Your task to perform on an android device: change keyboard looks Image 0: 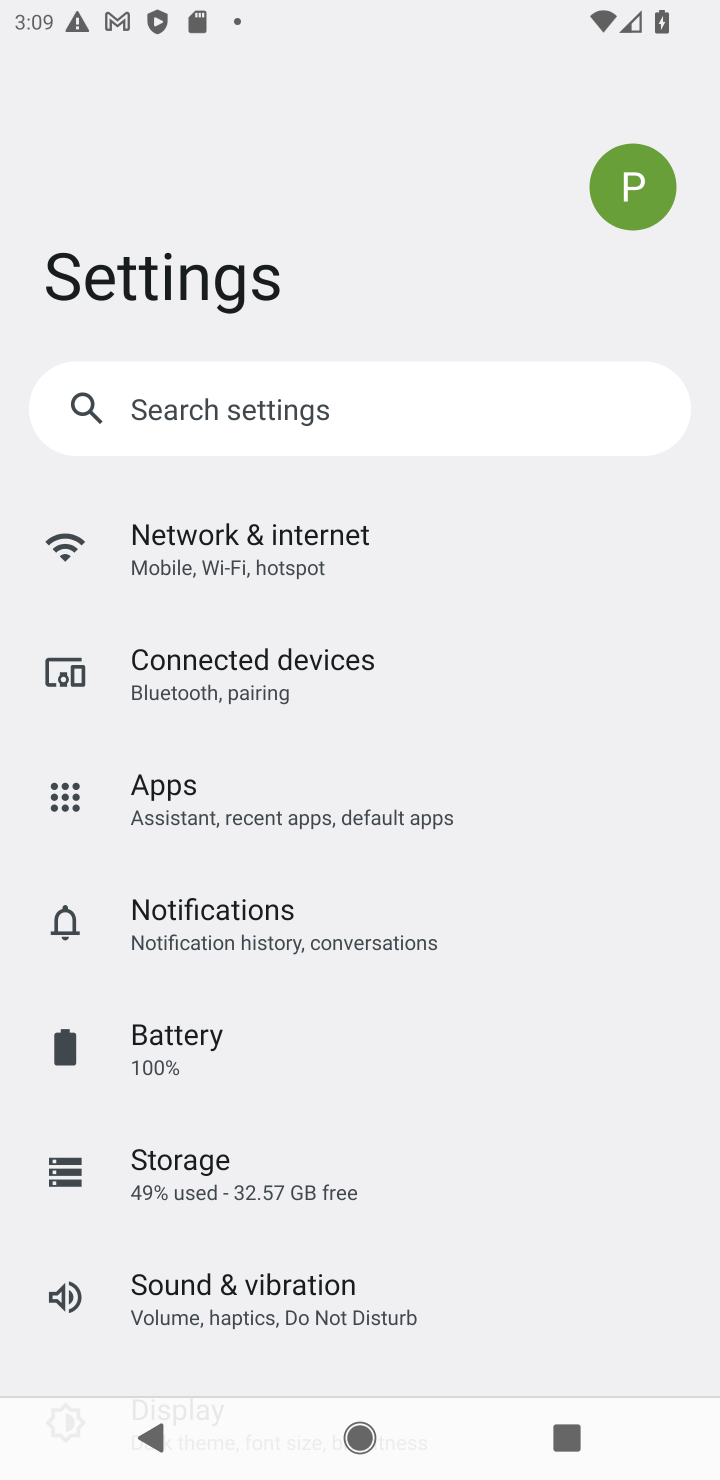
Step 0: drag from (284, 1348) to (333, 587)
Your task to perform on an android device: change keyboard looks Image 1: 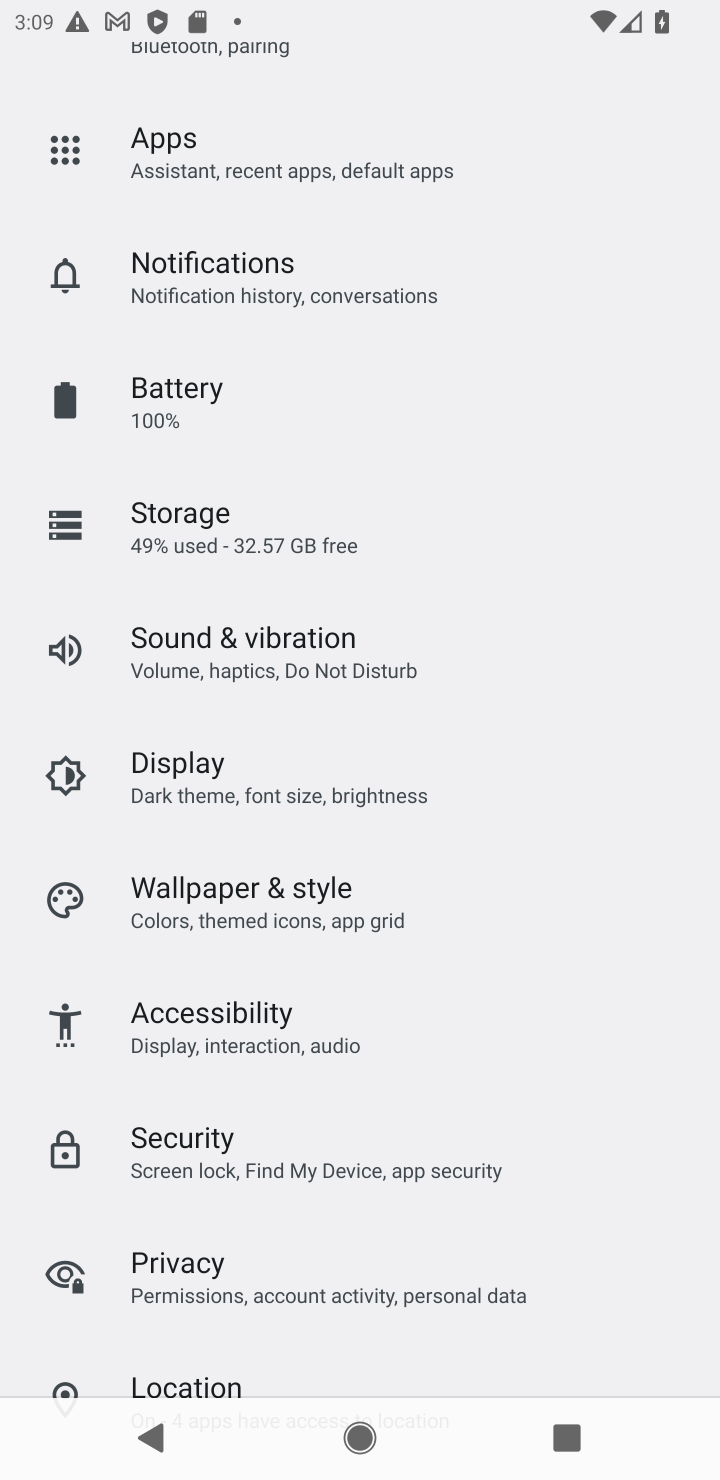
Step 1: drag from (215, 1282) to (229, 691)
Your task to perform on an android device: change keyboard looks Image 2: 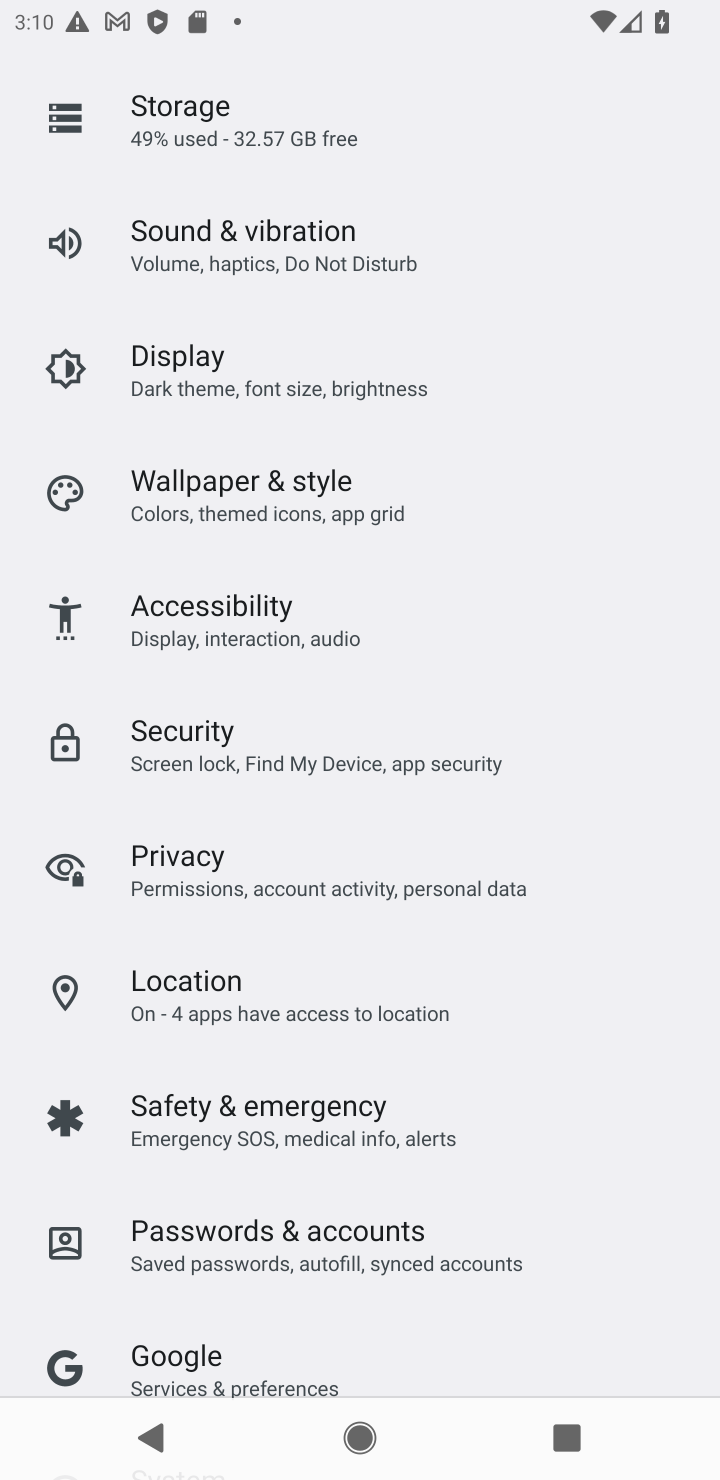
Step 2: drag from (220, 1273) to (220, 639)
Your task to perform on an android device: change keyboard looks Image 3: 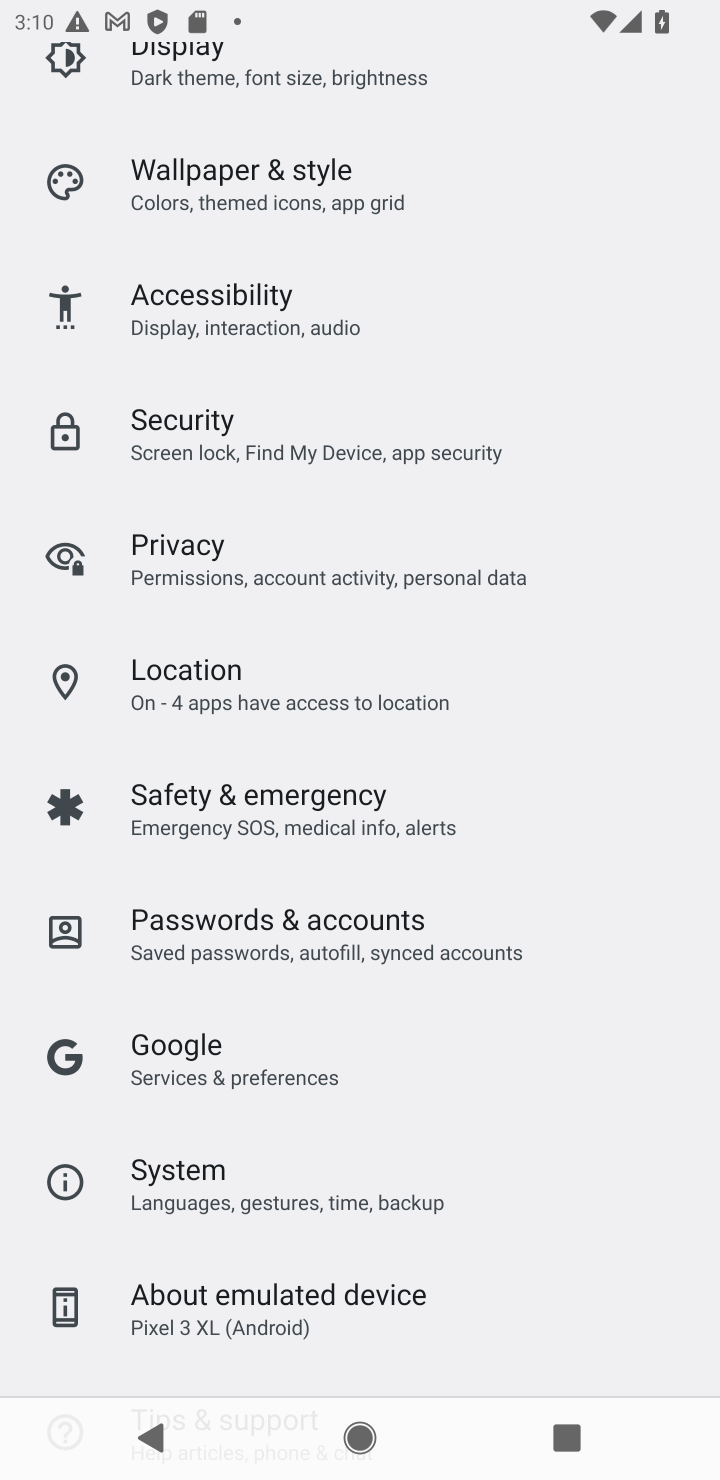
Step 3: drag from (307, 1249) to (279, 620)
Your task to perform on an android device: change keyboard looks Image 4: 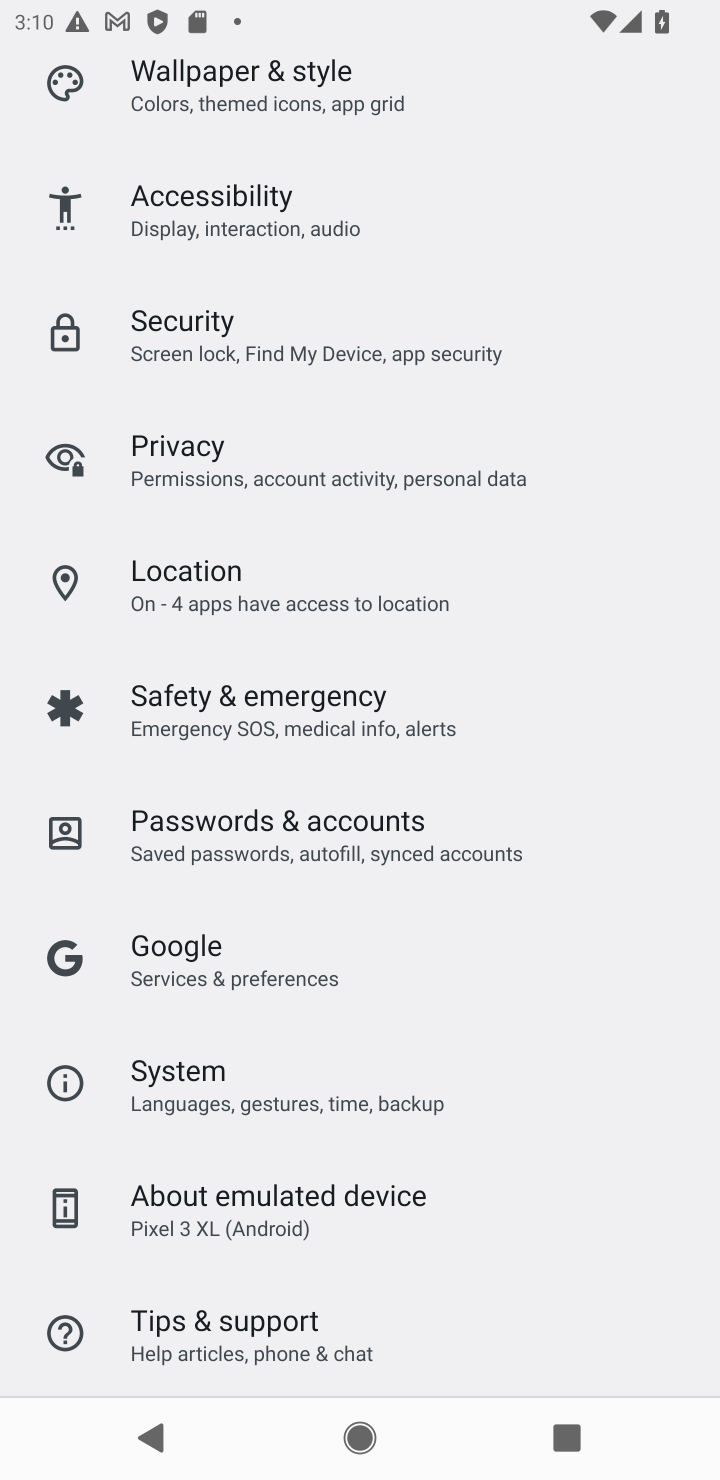
Step 4: drag from (248, 1324) to (221, 905)
Your task to perform on an android device: change keyboard looks Image 5: 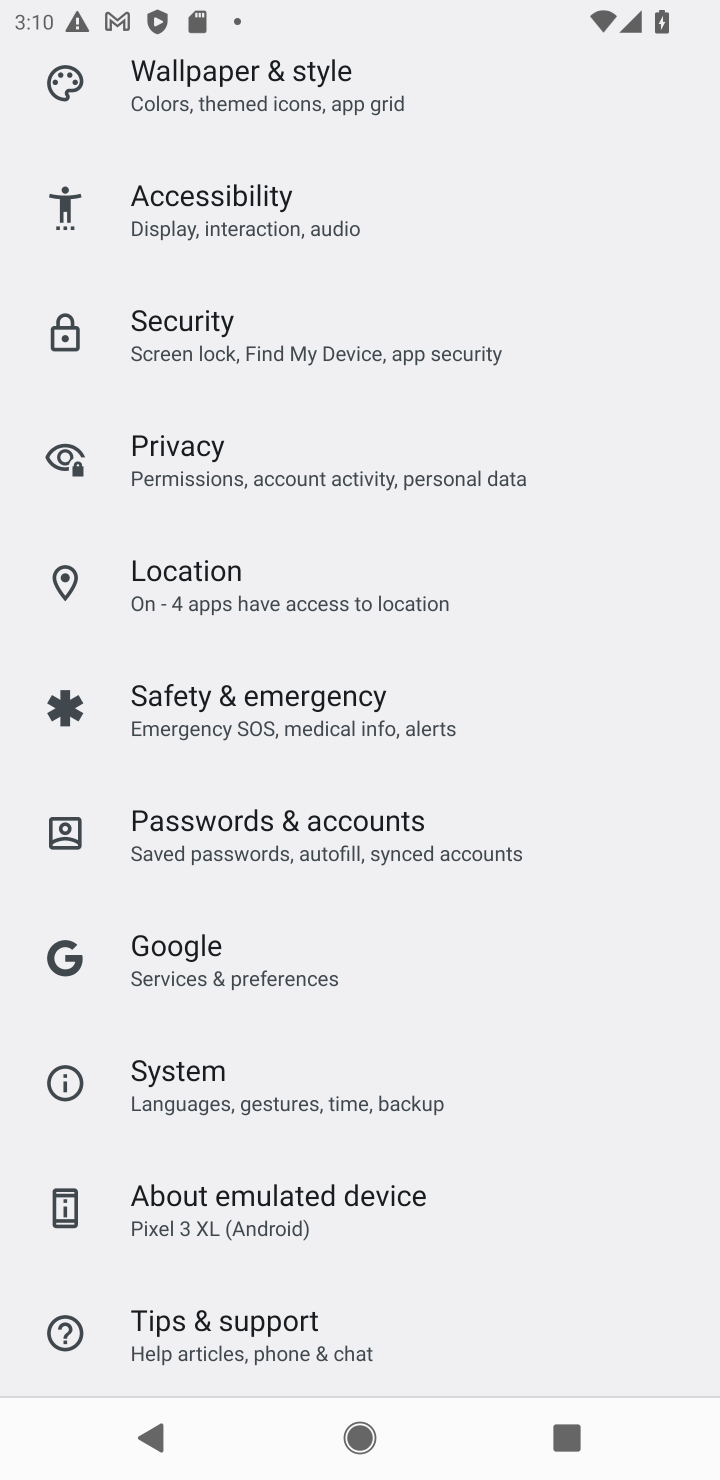
Step 5: drag from (238, 1316) to (227, 836)
Your task to perform on an android device: change keyboard looks Image 6: 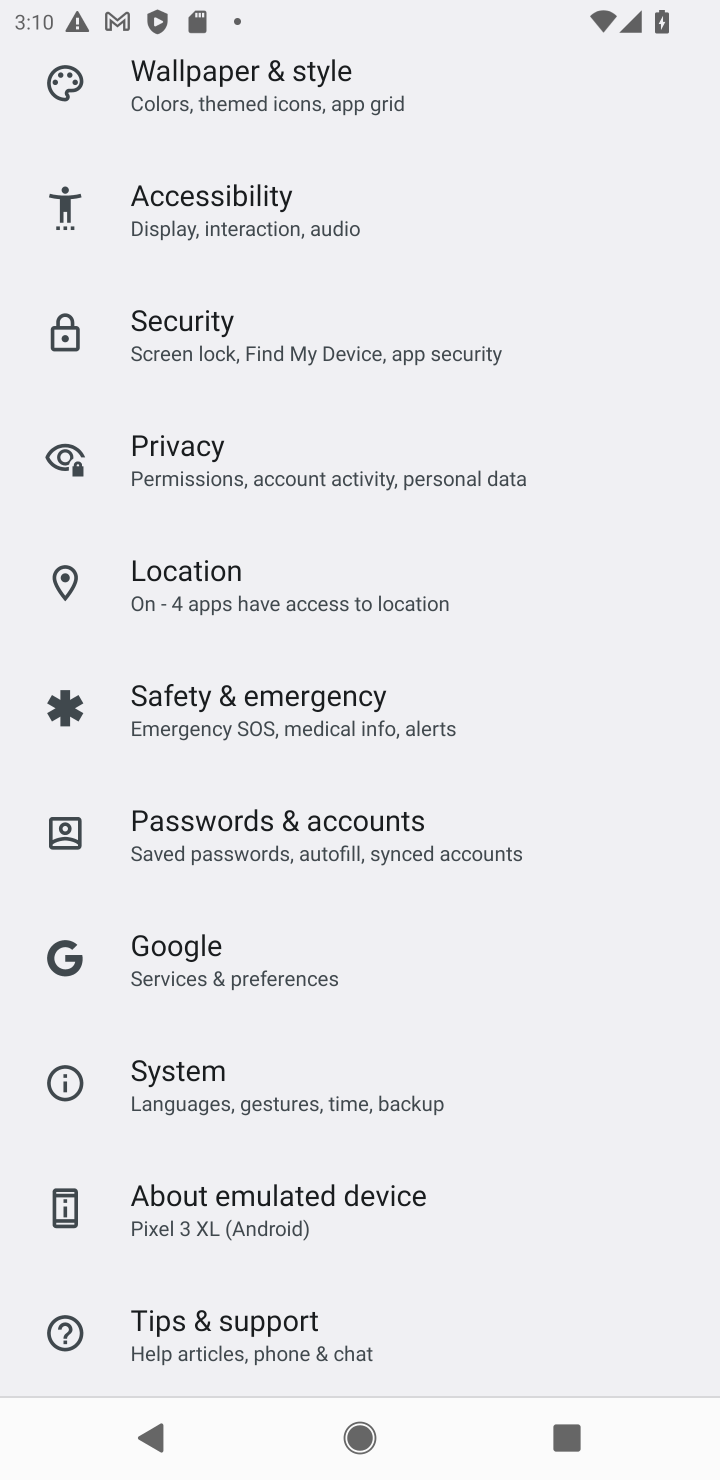
Step 6: drag from (150, 1338) to (150, 829)
Your task to perform on an android device: change keyboard looks Image 7: 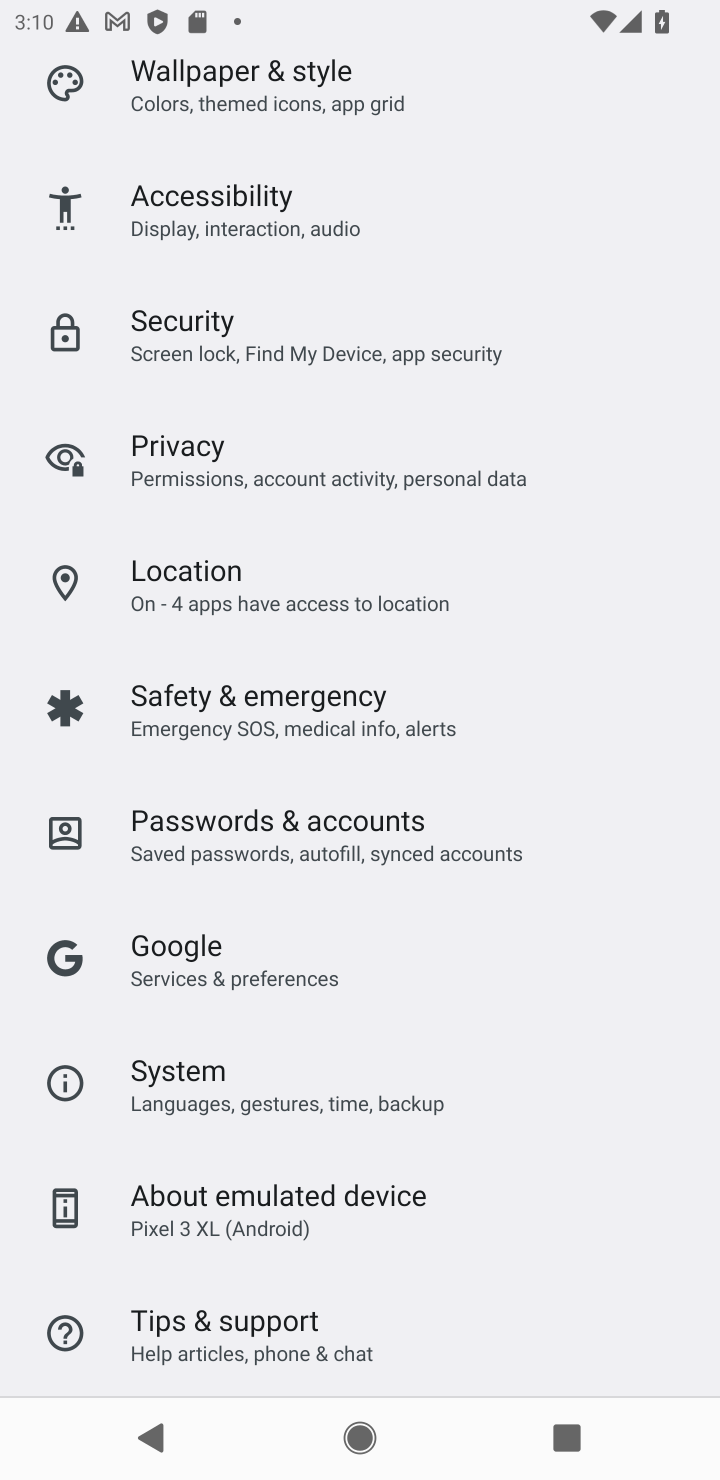
Step 7: click (190, 1078)
Your task to perform on an android device: change keyboard looks Image 8: 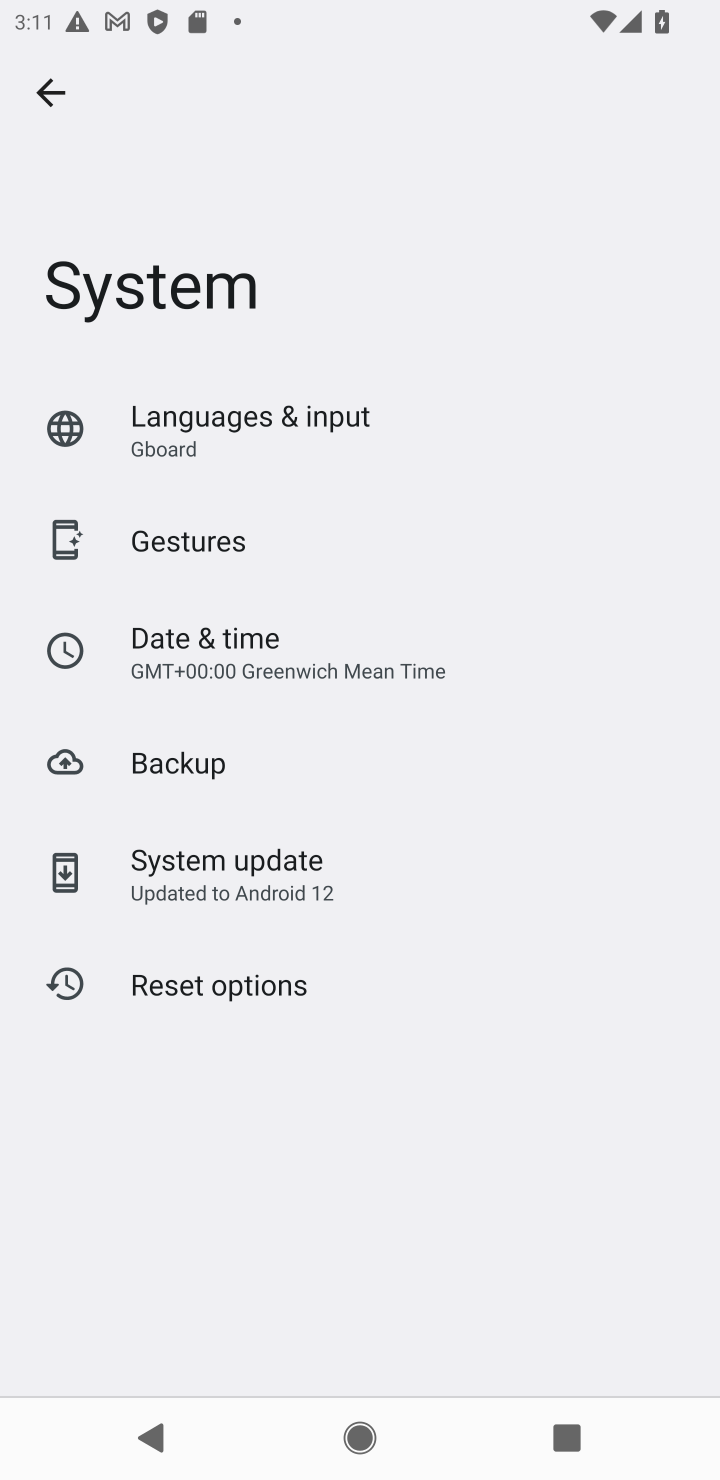
Step 8: click (187, 410)
Your task to perform on an android device: change keyboard looks Image 9: 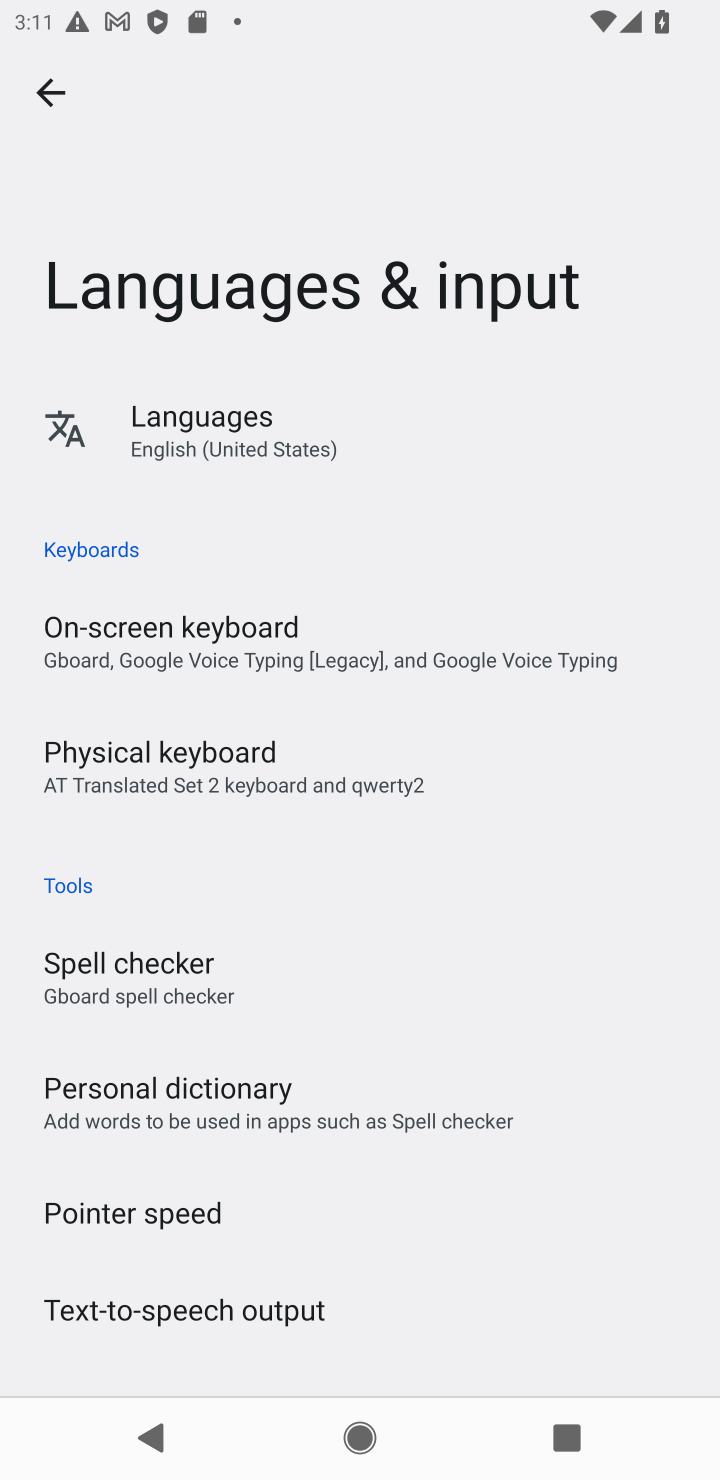
Step 9: click (179, 618)
Your task to perform on an android device: change keyboard looks Image 10: 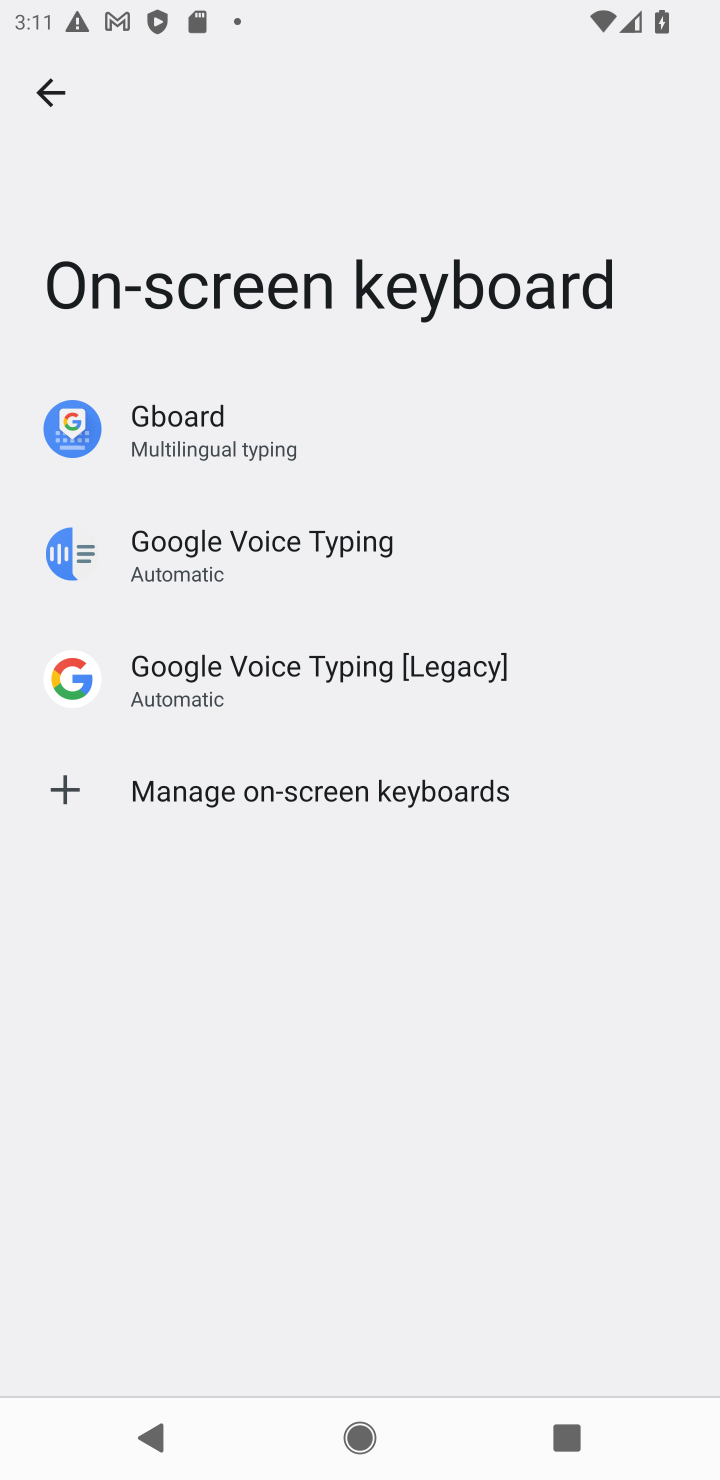
Step 10: click (193, 435)
Your task to perform on an android device: change keyboard looks Image 11: 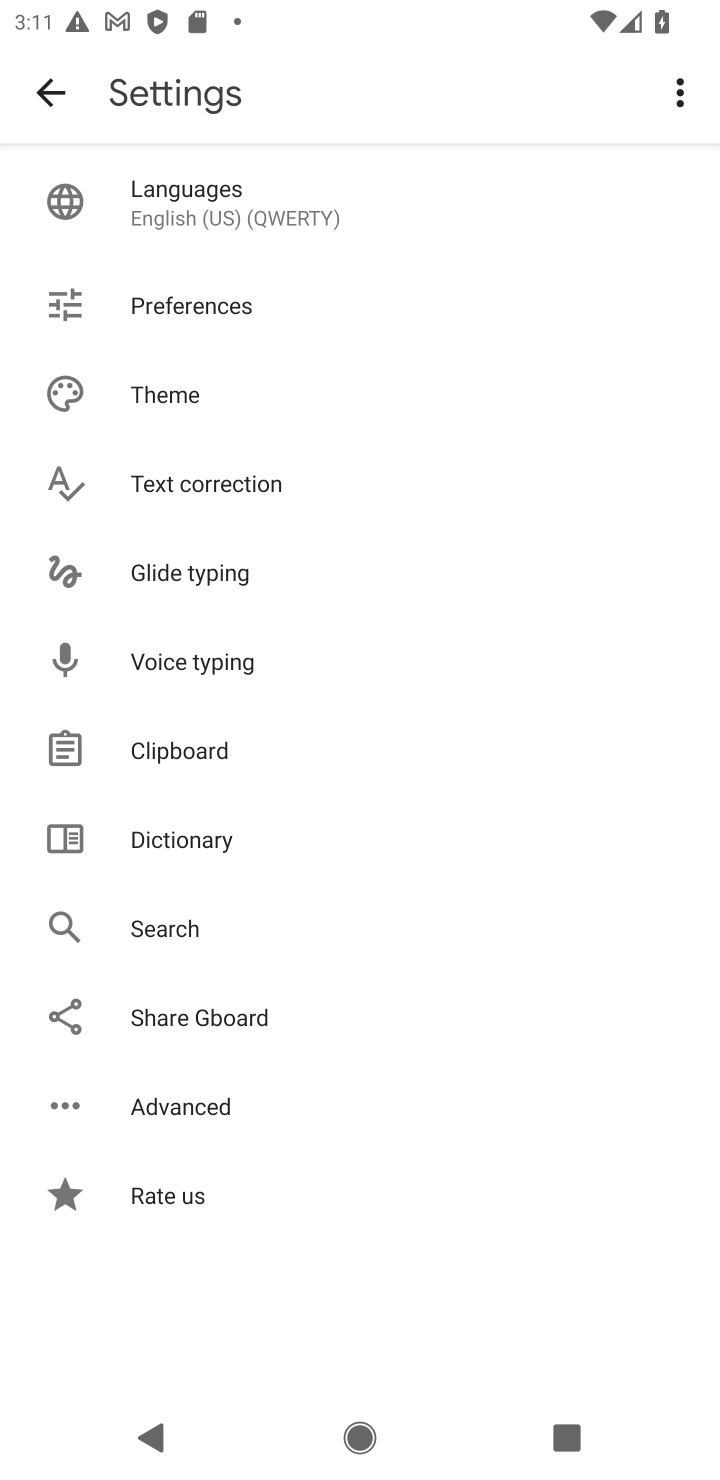
Step 11: click (180, 387)
Your task to perform on an android device: change keyboard looks Image 12: 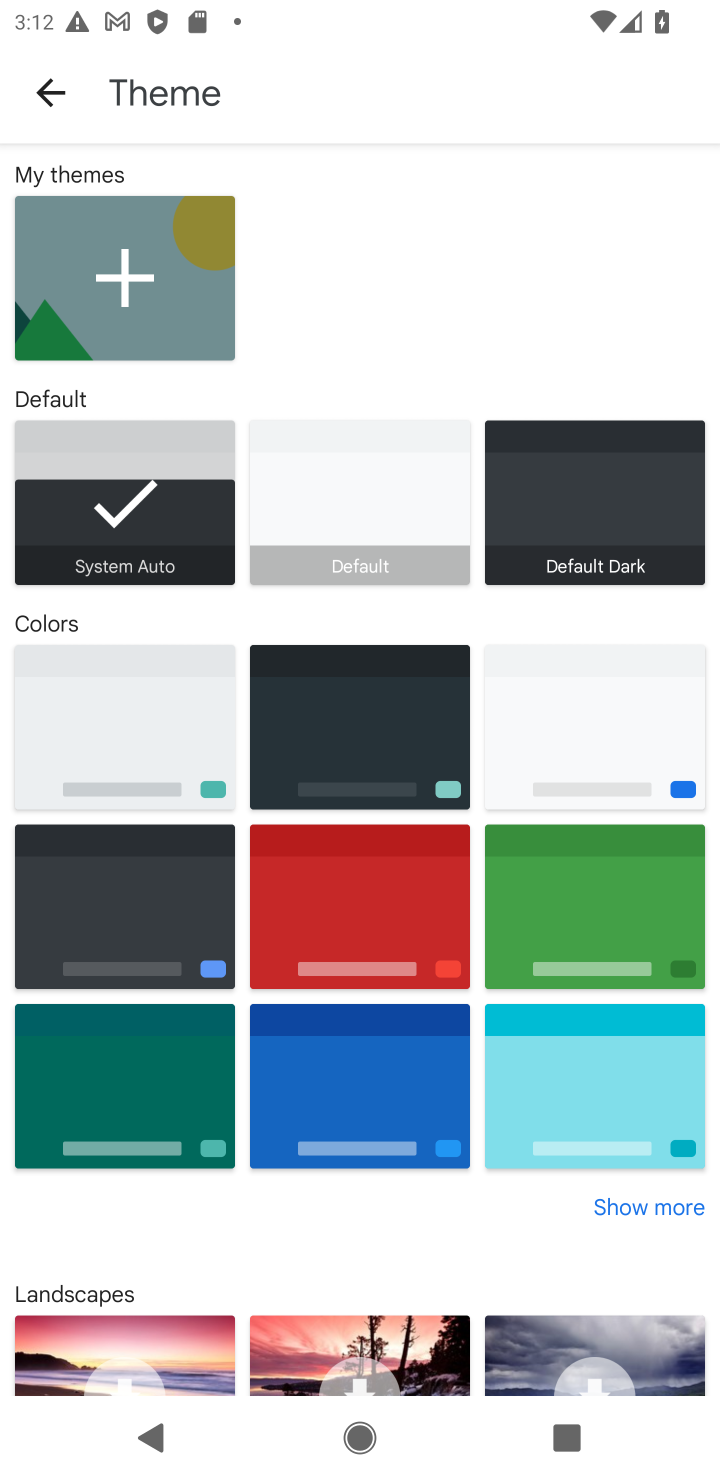
Step 12: click (608, 556)
Your task to perform on an android device: change keyboard looks Image 13: 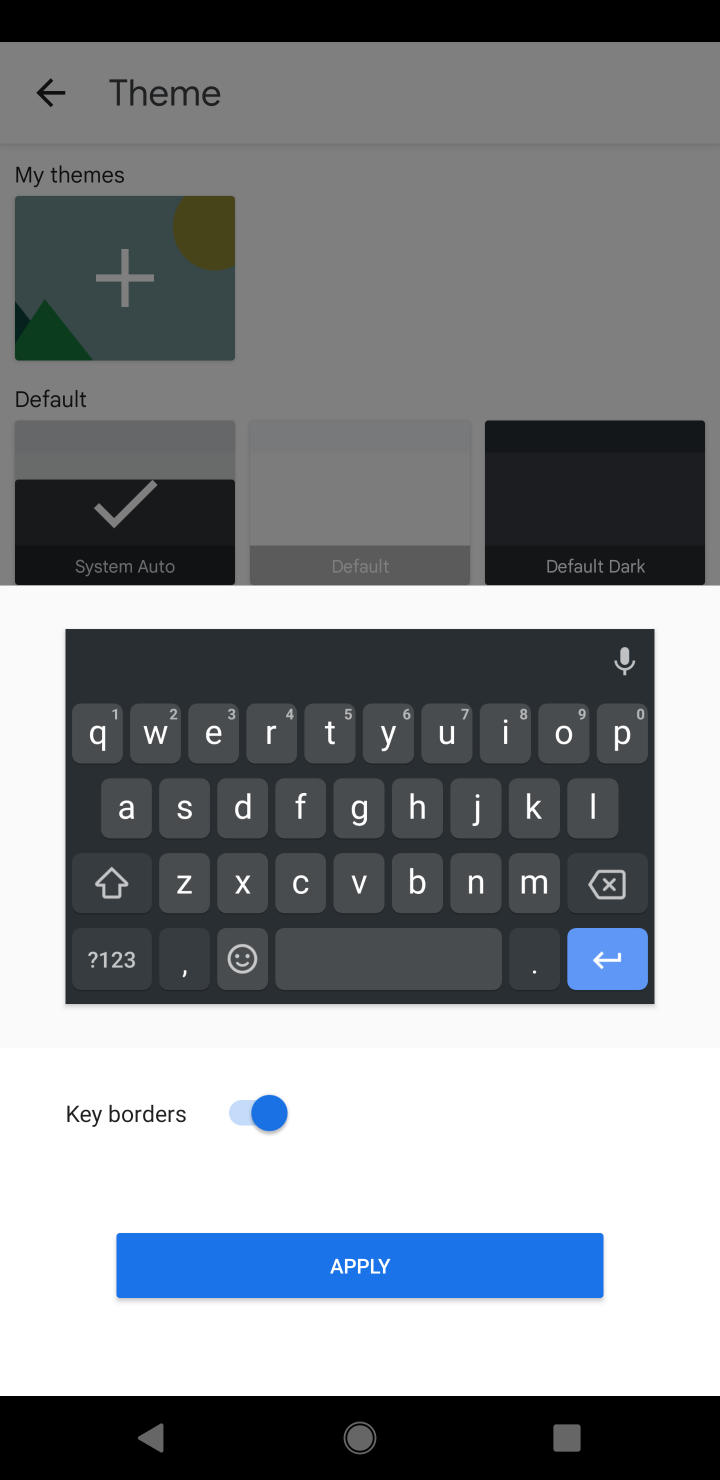
Step 13: click (390, 1273)
Your task to perform on an android device: change keyboard looks Image 14: 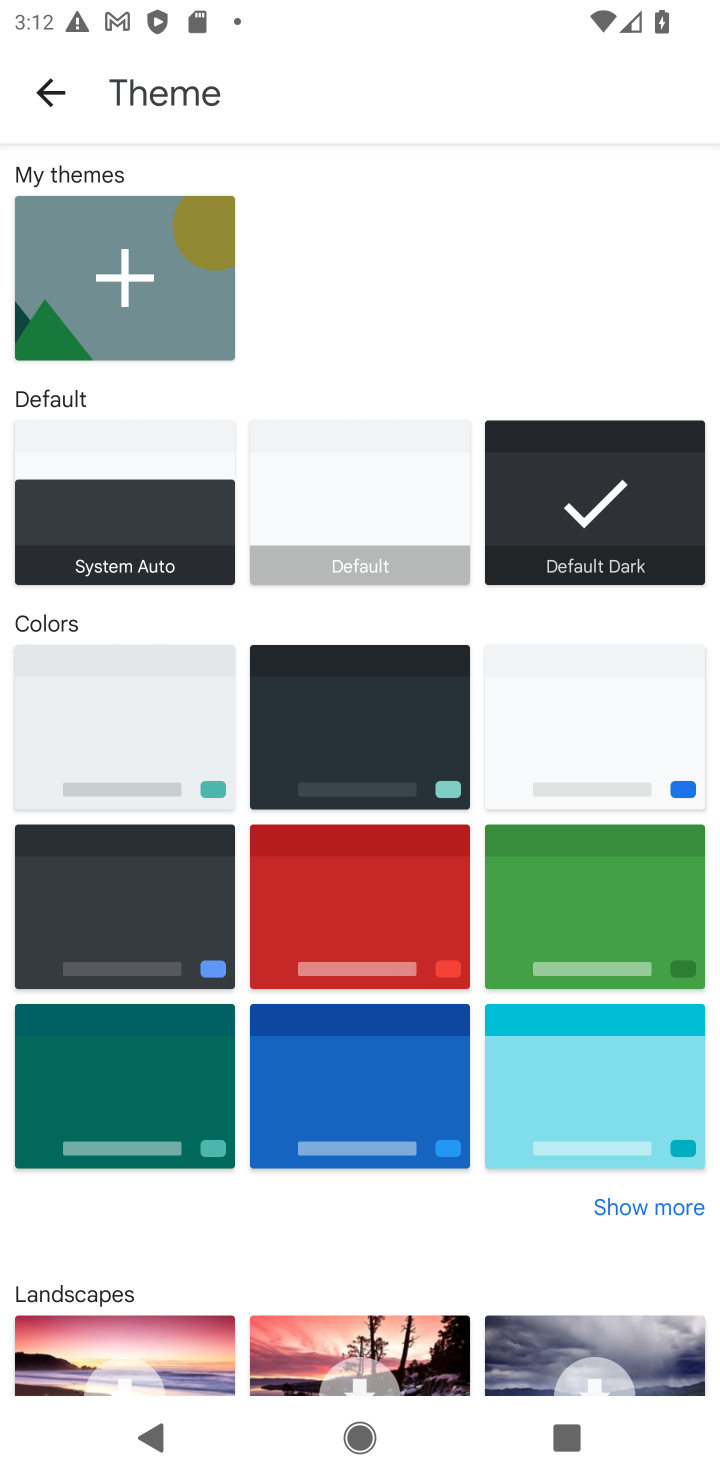
Step 14: task complete